Your task to perform on an android device: Open Google Maps and go to "Timeline" Image 0: 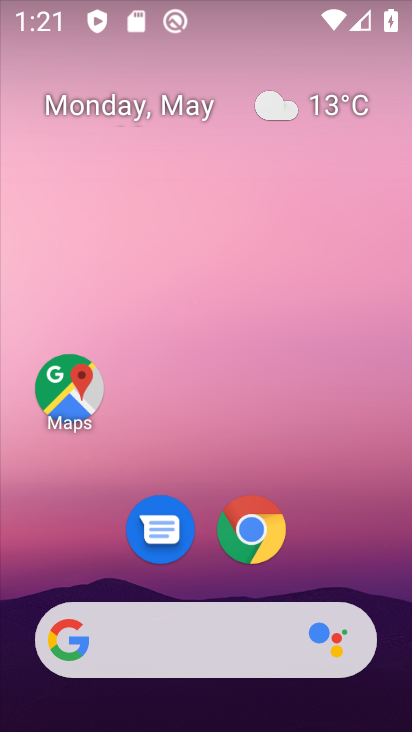
Step 0: drag from (369, 566) to (337, 96)
Your task to perform on an android device: Open Google Maps and go to "Timeline" Image 1: 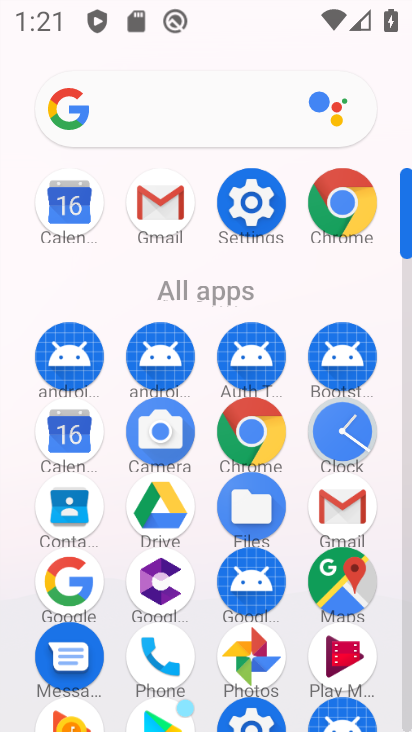
Step 1: click (363, 592)
Your task to perform on an android device: Open Google Maps and go to "Timeline" Image 2: 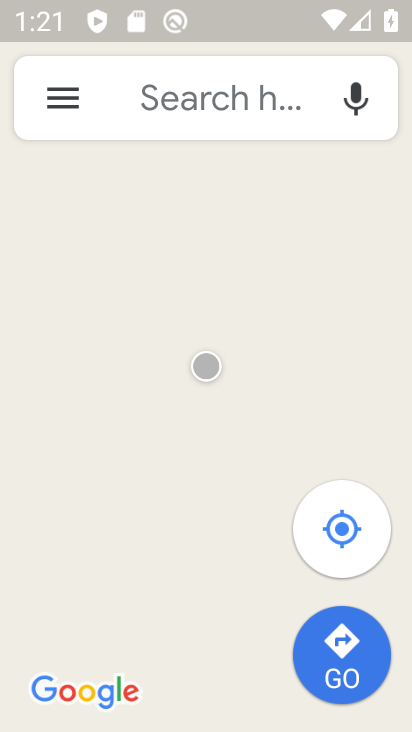
Step 2: click (58, 100)
Your task to perform on an android device: Open Google Maps and go to "Timeline" Image 3: 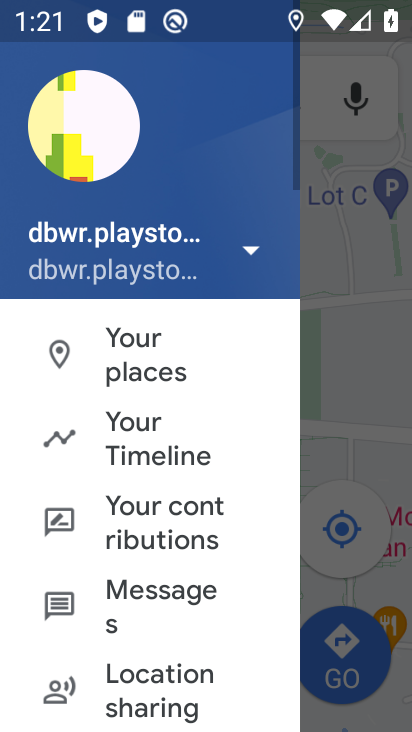
Step 3: click (162, 434)
Your task to perform on an android device: Open Google Maps and go to "Timeline" Image 4: 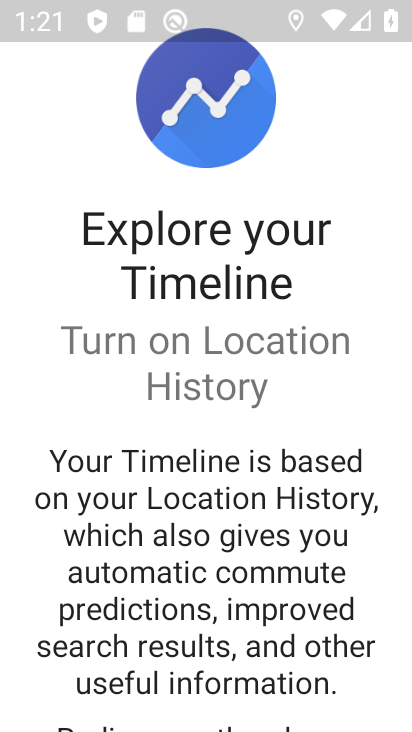
Step 4: drag from (341, 681) to (297, 104)
Your task to perform on an android device: Open Google Maps and go to "Timeline" Image 5: 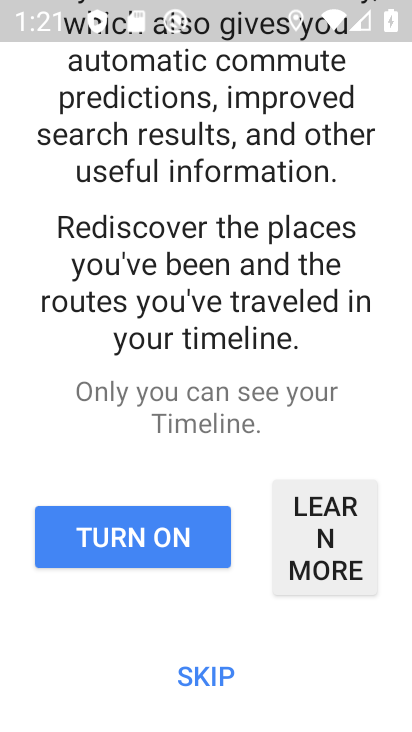
Step 5: click (208, 526)
Your task to perform on an android device: Open Google Maps and go to "Timeline" Image 6: 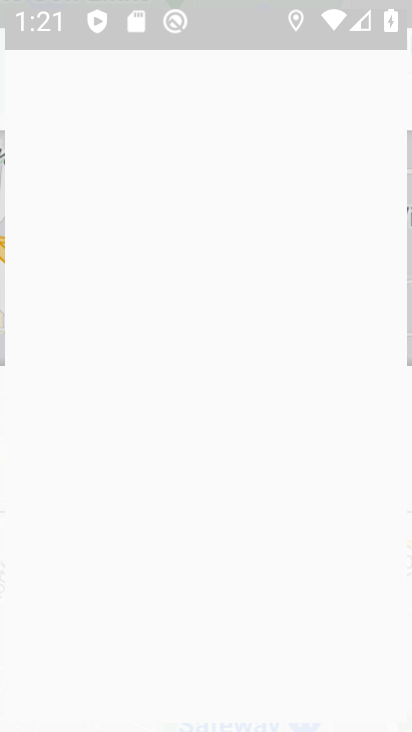
Step 6: task complete